Your task to perform on an android device: manage bookmarks in the chrome app Image 0: 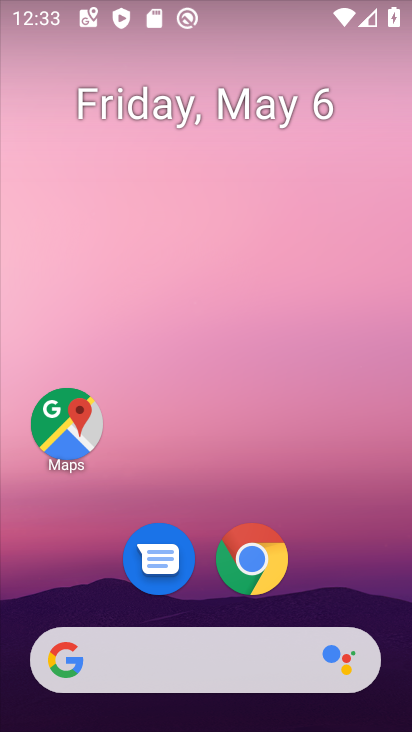
Step 0: click (245, 573)
Your task to perform on an android device: manage bookmarks in the chrome app Image 1: 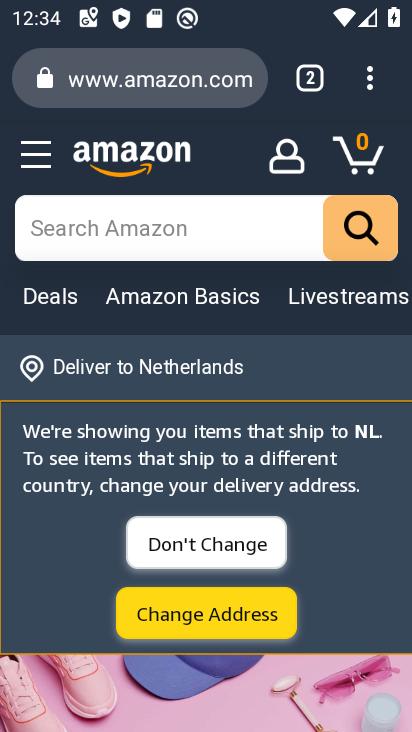
Step 1: click (369, 78)
Your task to perform on an android device: manage bookmarks in the chrome app Image 2: 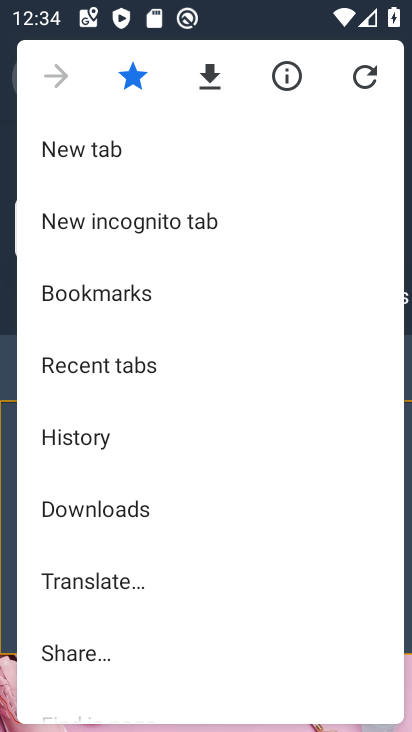
Step 2: click (60, 289)
Your task to perform on an android device: manage bookmarks in the chrome app Image 3: 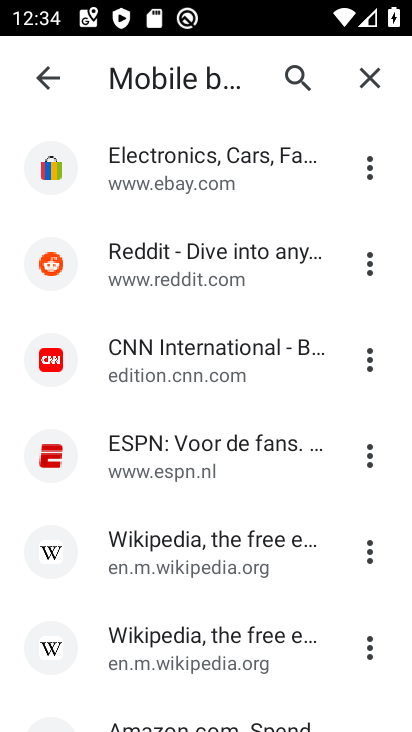
Step 3: click (372, 167)
Your task to perform on an android device: manage bookmarks in the chrome app Image 4: 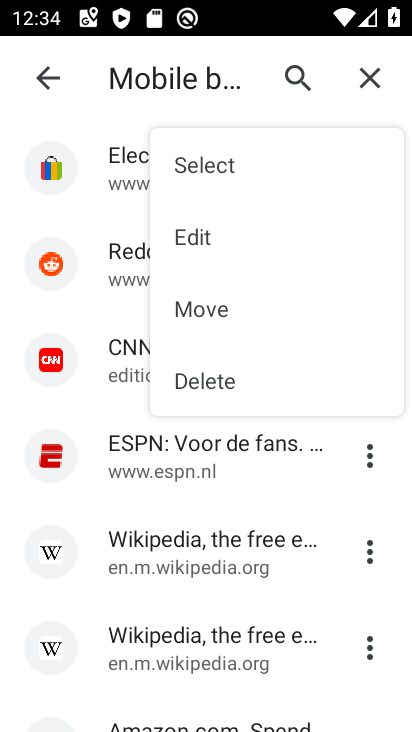
Step 4: click (257, 395)
Your task to perform on an android device: manage bookmarks in the chrome app Image 5: 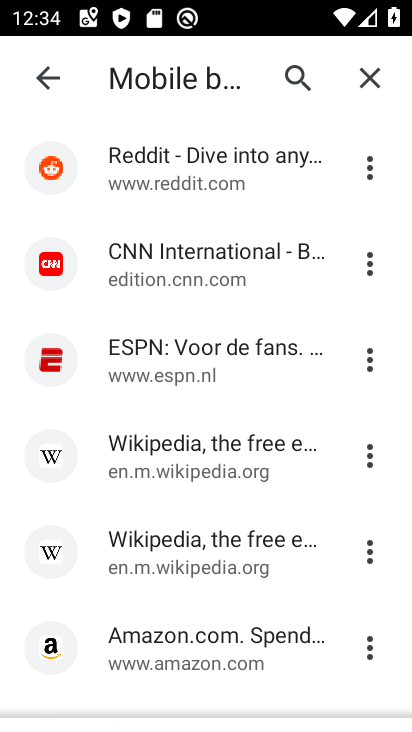
Step 5: task complete